Your task to perform on an android device: turn notification dots on Image 0: 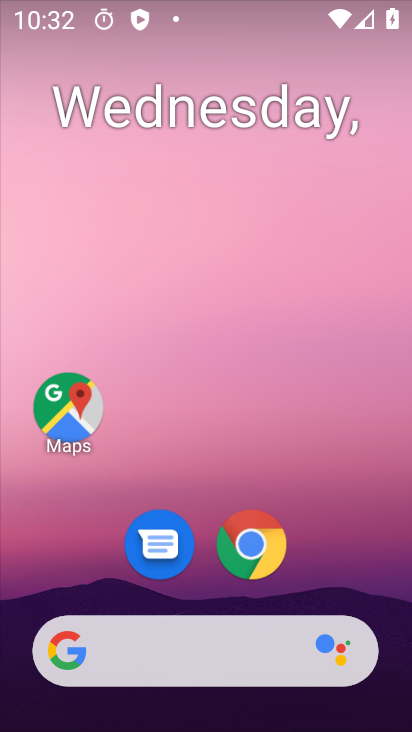
Step 0: press home button
Your task to perform on an android device: turn notification dots on Image 1: 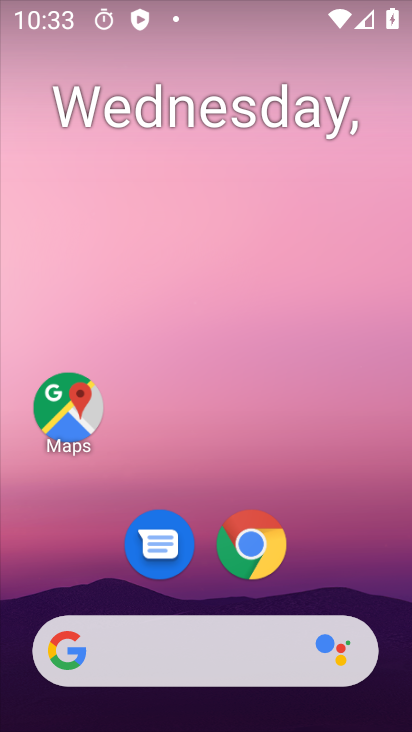
Step 1: drag from (274, 680) to (261, 22)
Your task to perform on an android device: turn notification dots on Image 2: 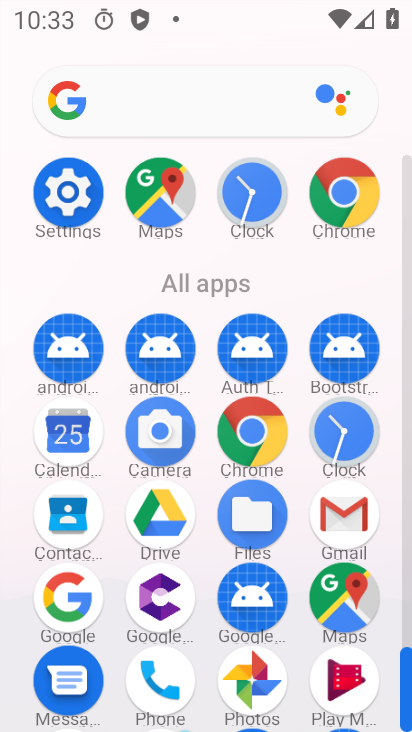
Step 2: click (75, 217)
Your task to perform on an android device: turn notification dots on Image 3: 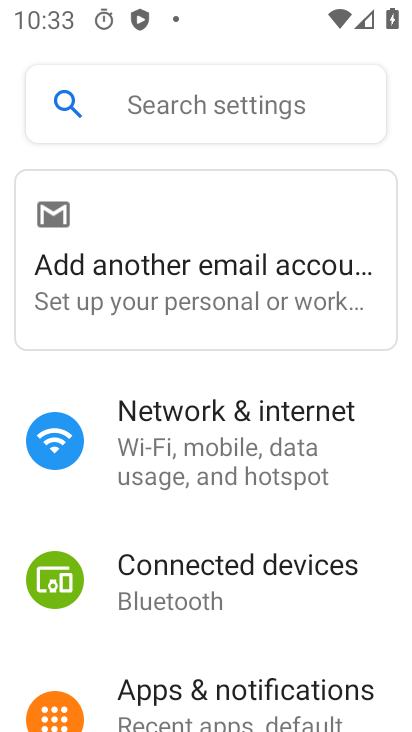
Step 3: click (176, 114)
Your task to perform on an android device: turn notification dots on Image 4: 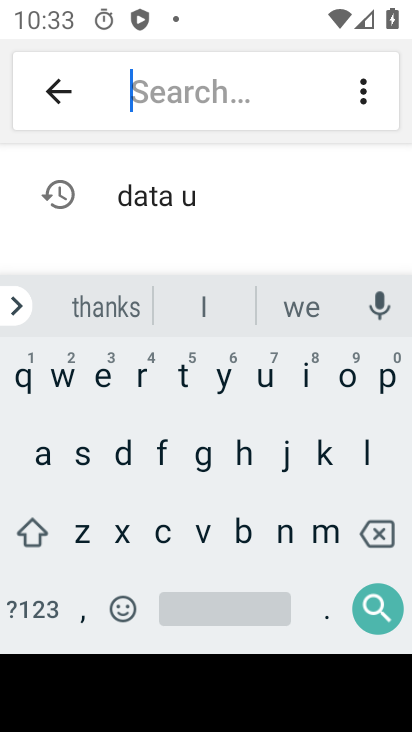
Step 4: click (123, 454)
Your task to perform on an android device: turn notification dots on Image 5: 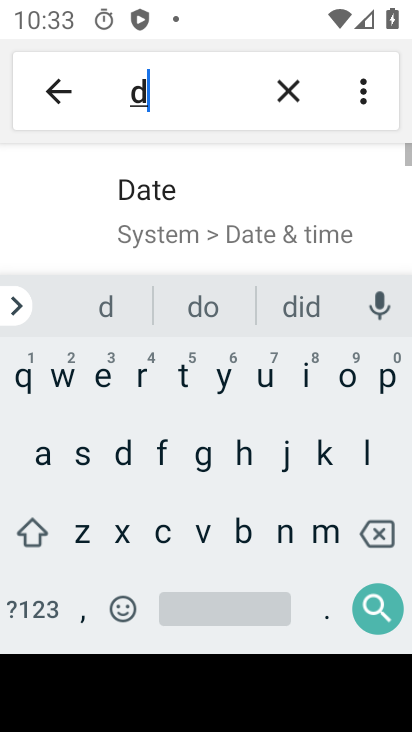
Step 5: click (40, 453)
Your task to perform on an android device: turn notification dots on Image 6: 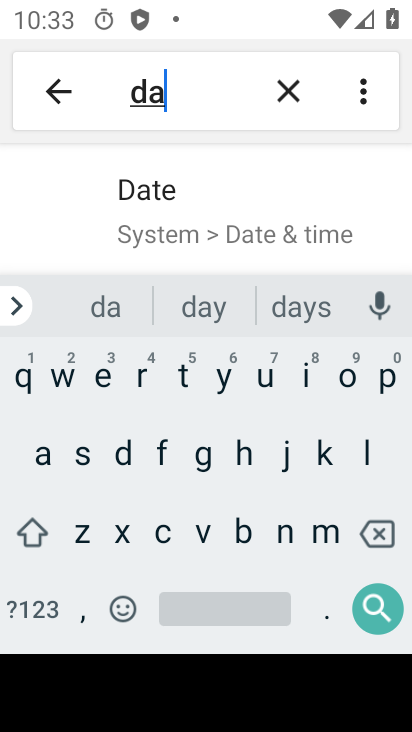
Step 6: click (382, 550)
Your task to perform on an android device: turn notification dots on Image 7: 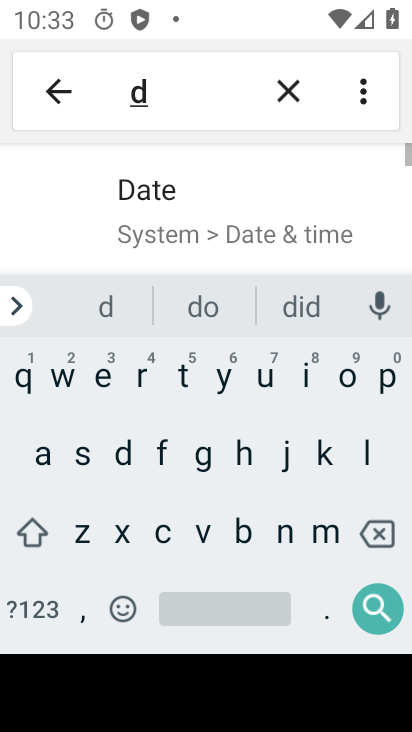
Step 7: click (339, 375)
Your task to perform on an android device: turn notification dots on Image 8: 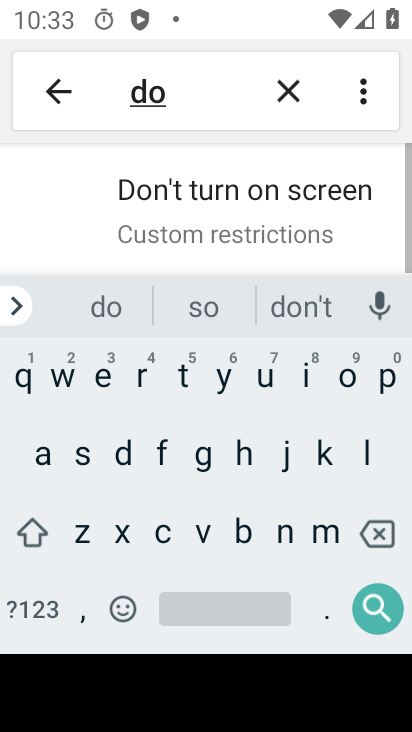
Step 8: click (183, 385)
Your task to perform on an android device: turn notification dots on Image 9: 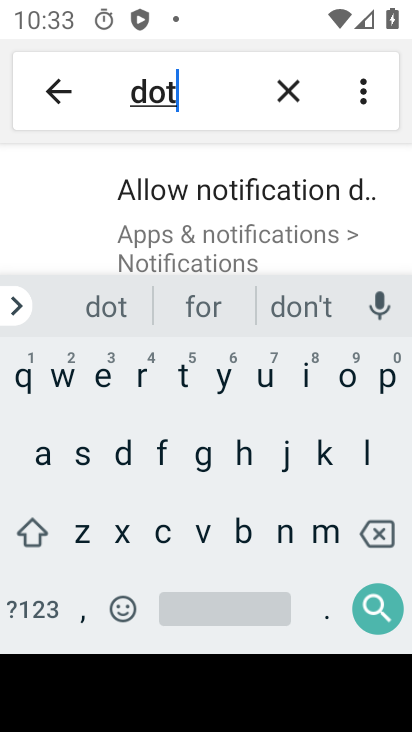
Step 9: press back button
Your task to perform on an android device: turn notification dots on Image 10: 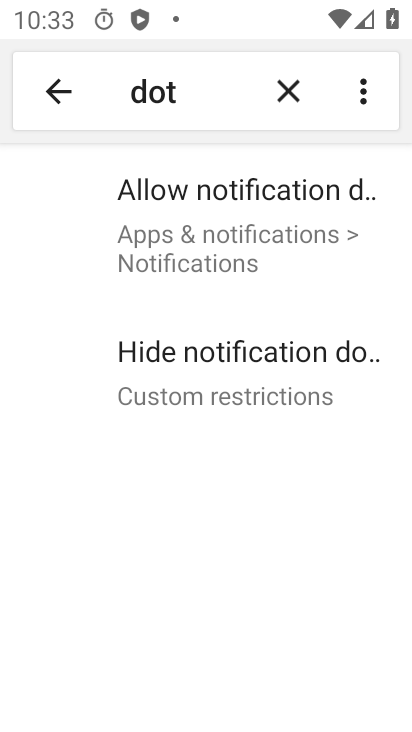
Step 10: click (195, 372)
Your task to perform on an android device: turn notification dots on Image 11: 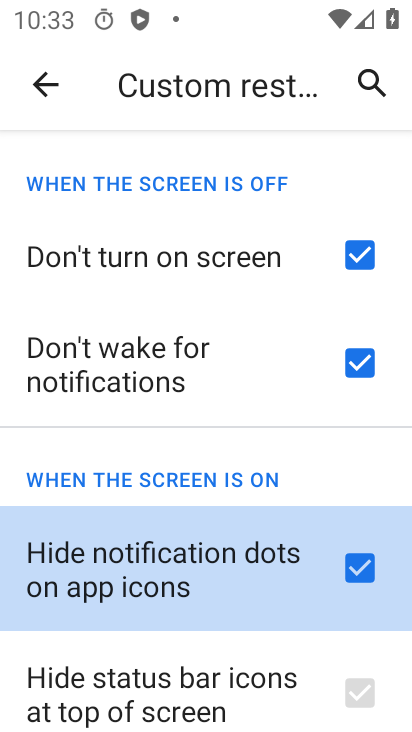
Step 11: click (210, 569)
Your task to perform on an android device: turn notification dots on Image 12: 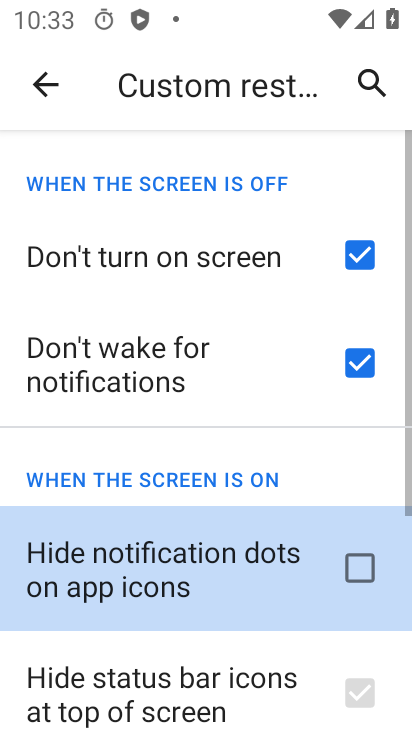
Step 12: click (210, 569)
Your task to perform on an android device: turn notification dots on Image 13: 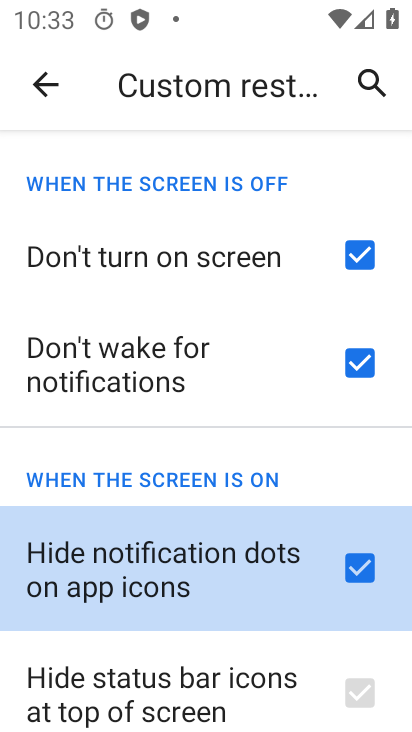
Step 13: click (349, 582)
Your task to perform on an android device: turn notification dots on Image 14: 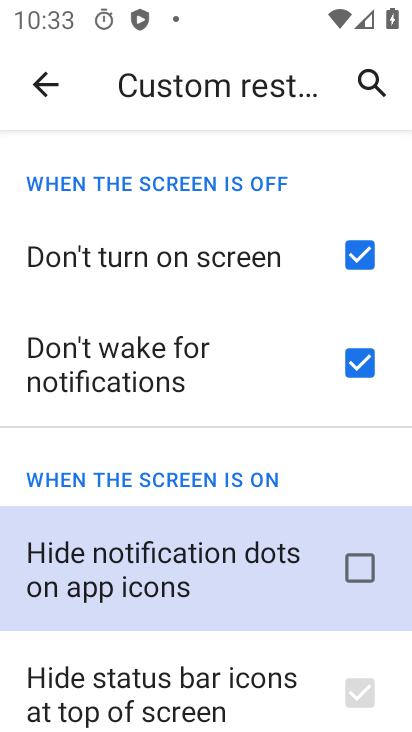
Step 14: click (345, 564)
Your task to perform on an android device: turn notification dots on Image 15: 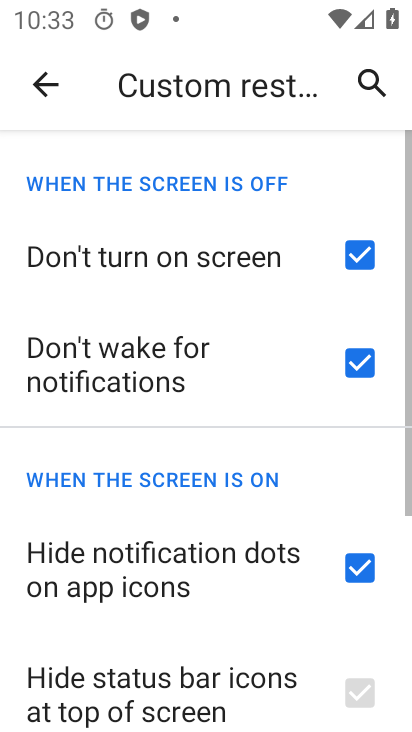
Step 15: task complete